Your task to perform on an android device: Go to accessibility settings Image 0: 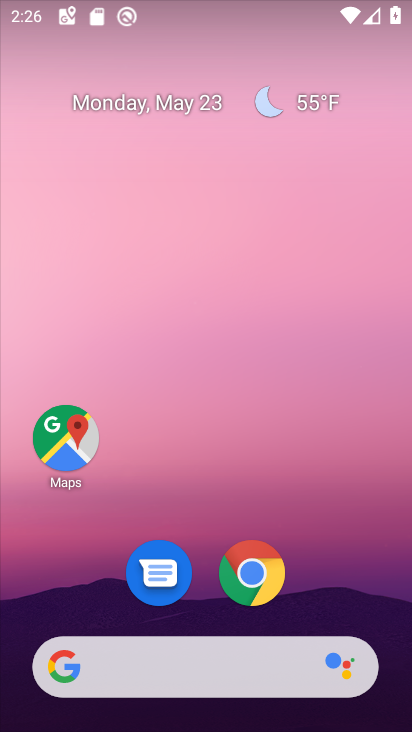
Step 0: drag from (349, 583) to (268, 18)
Your task to perform on an android device: Go to accessibility settings Image 1: 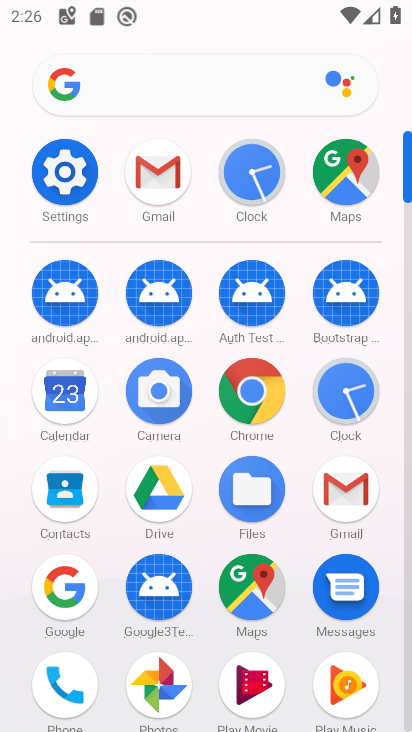
Step 1: click (65, 155)
Your task to perform on an android device: Go to accessibility settings Image 2: 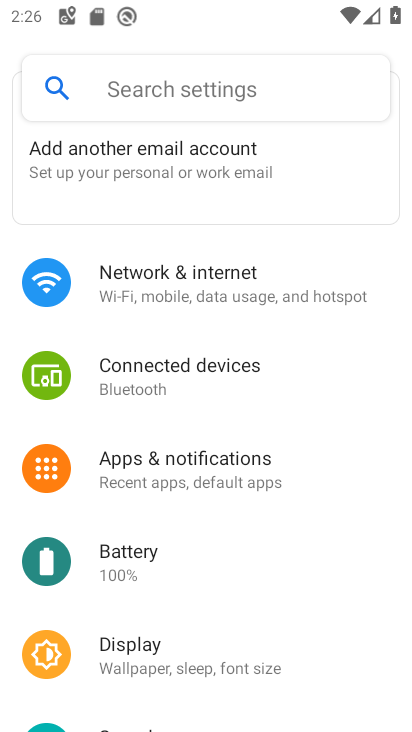
Step 2: drag from (283, 639) to (303, 87)
Your task to perform on an android device: Go to accessibility settings Image 3: 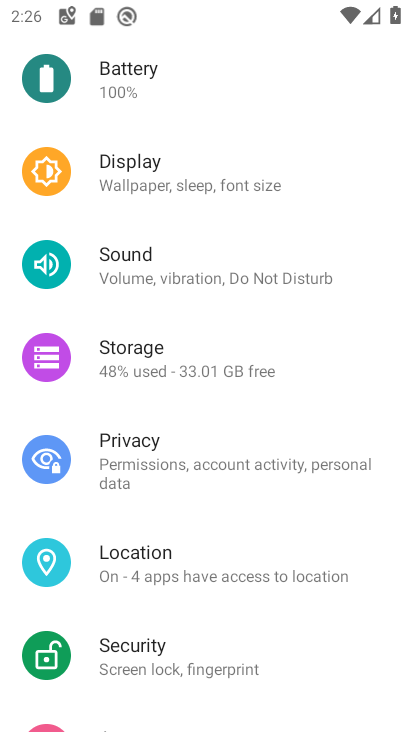
Step 3: drag from (218, 628) to (293, 19)
Your task to perform on an android device: Go to accessibility settings Image 4: 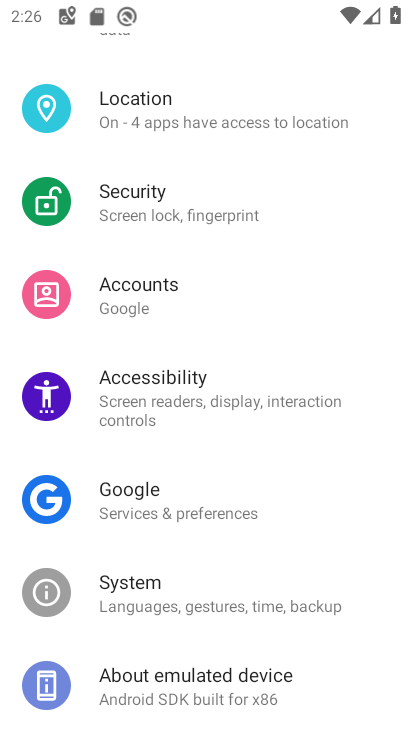
Step 4: click (206, 398)
Your task to perform on an android device: Go to accessibility settings Image 5: 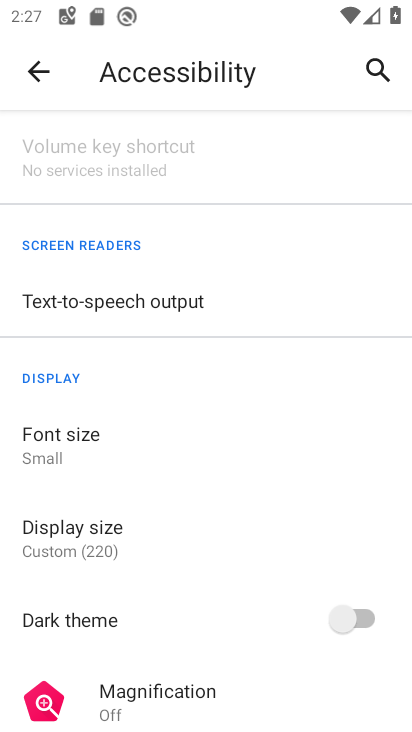
Step 5: task complete